Your task to perform on an android device: Turn off the flashlight Image 0: 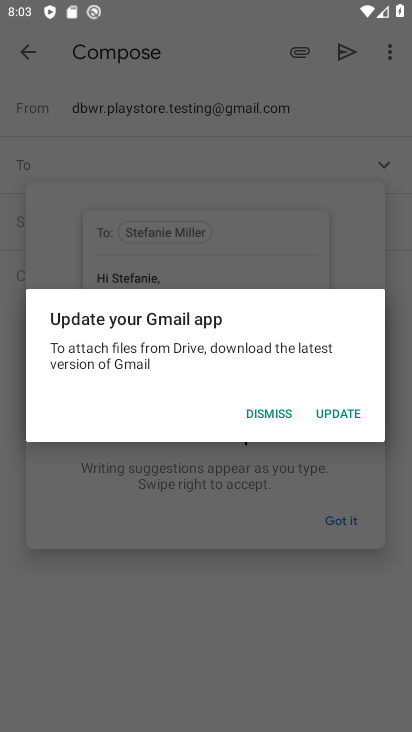
Step 0: press home button
Your task to perform on an android device: Turn off the flashlight Image 1: 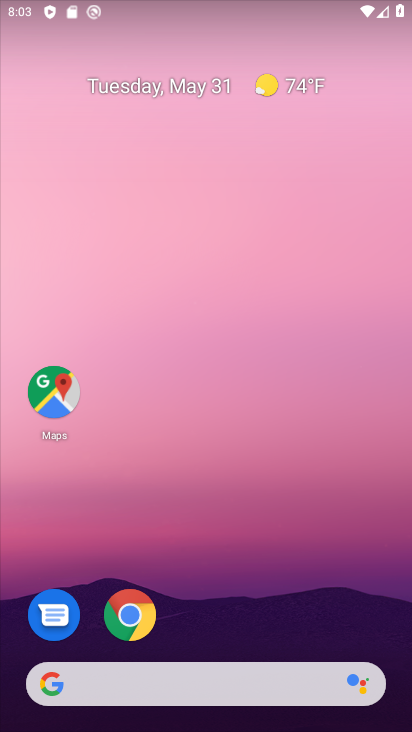
Step 1: drag from (176, 637) to (196, 252)
Your task to perform on an android device: Turn off the flashlight Image 2: 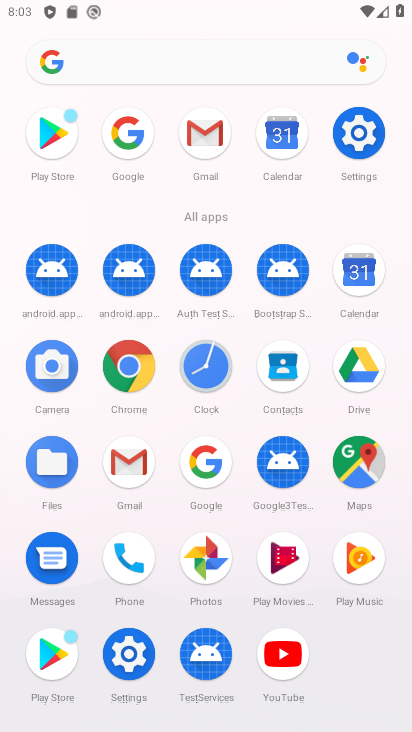
Step 2: click (348, 134)
Your task to perform on an android device: Turn off the flashlight Image 3: 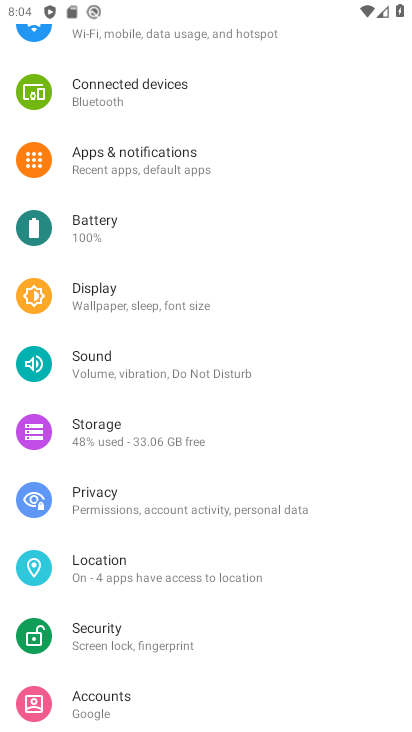
Step 3: task complete